Your task to perform on an android device: turn pop-ups on in chrome Image 0: 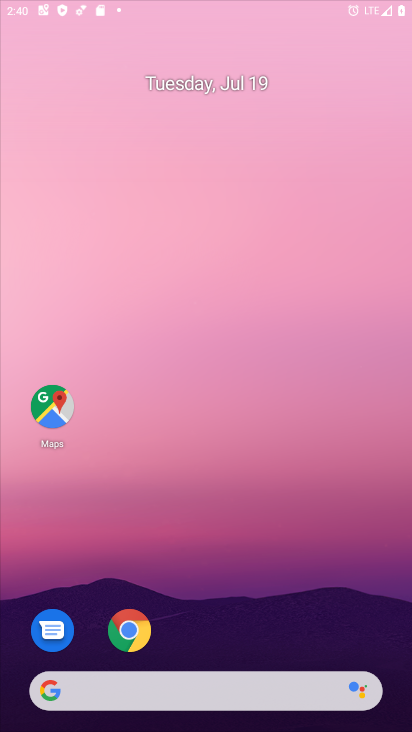
Step 0: press home button
Your task to perform on an android device: turn pop-ups on in chrome Image 1: 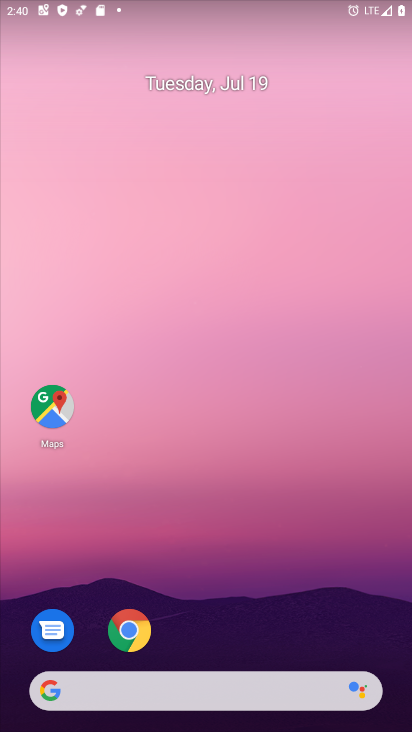
Step 1: click (129, 627)
Your task to perform on an android device: turn pop-ups on in chrome Image 2: 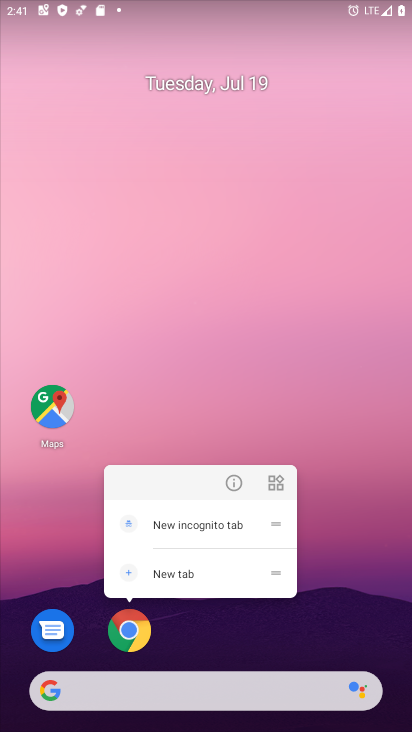
Step 2: click (124, 624)
Your task to perform on an android device: turn pop-ups on in chrome Image 3: 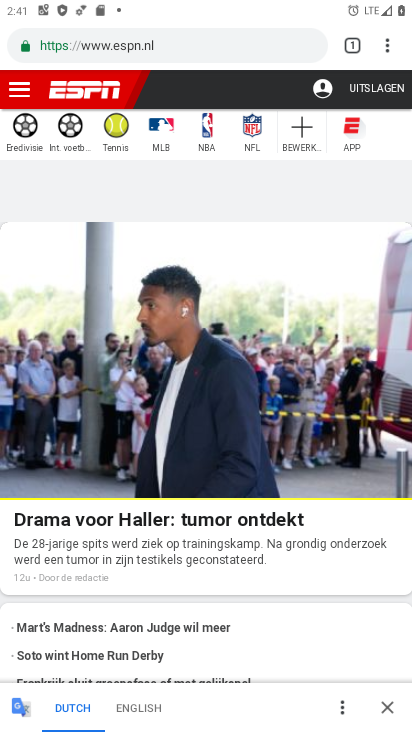
Step 3: click (388, 42)
Your task to perform on an android device: turn pop-ups on in chrome Image 4: 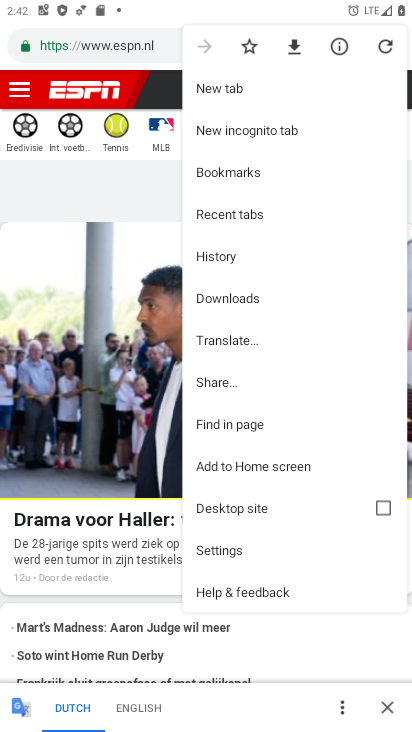
Step 4: click (241, 544)
Your task to perform on an android device: turn pop-ups on in chrome Image 5: 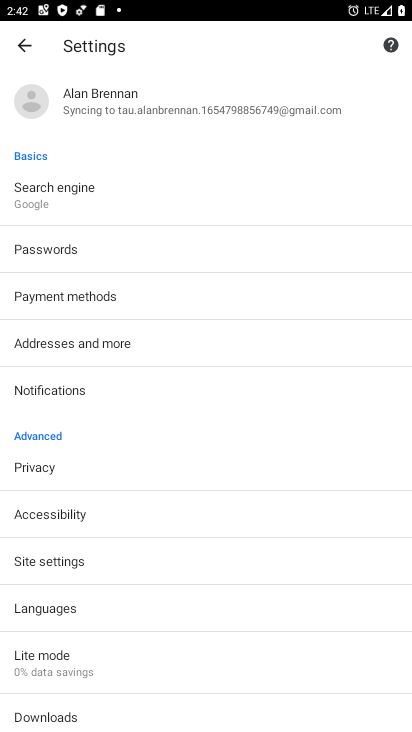
Step 5: click (110, 551)
Your task to perform on an android device: turn pop-ups on in chrome Image 6: 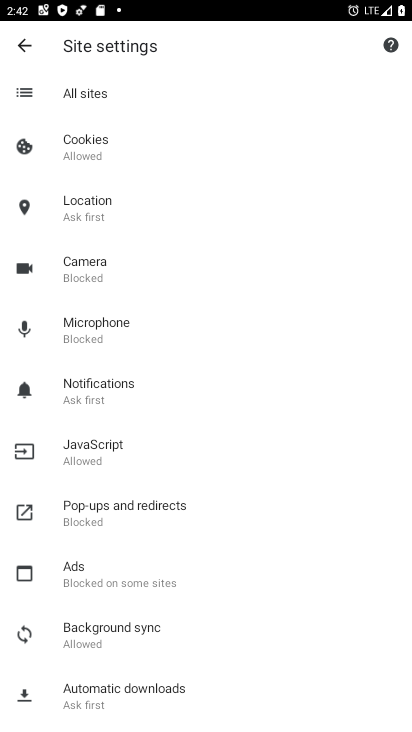
Step 6: click (110, 503)
Your task to perform on an android device: turn pop-ups on in chrome Image 7: 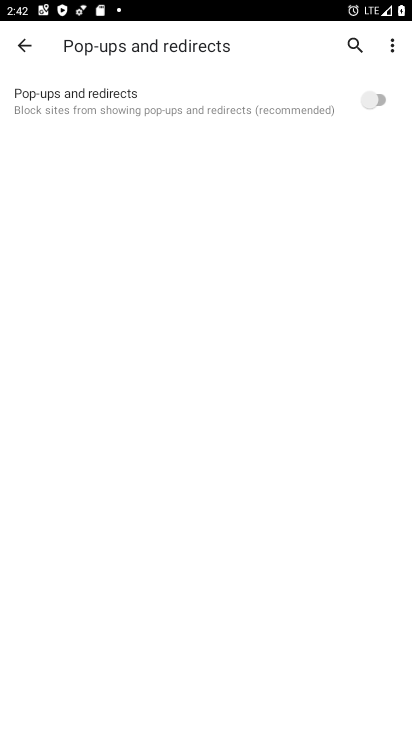
Step 7: click (379, 94)
Your task to perform on an android device: turn pop-ups on in chrome Image 8: 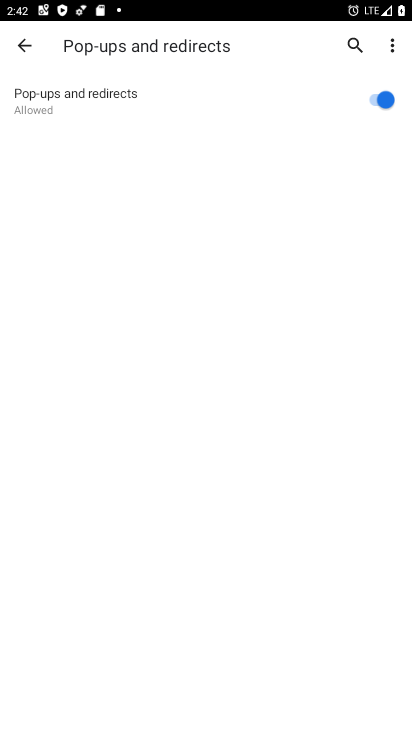
Step 8: task complete